Your task to perform on an android device: snooze an email in the gmail app Image 0: 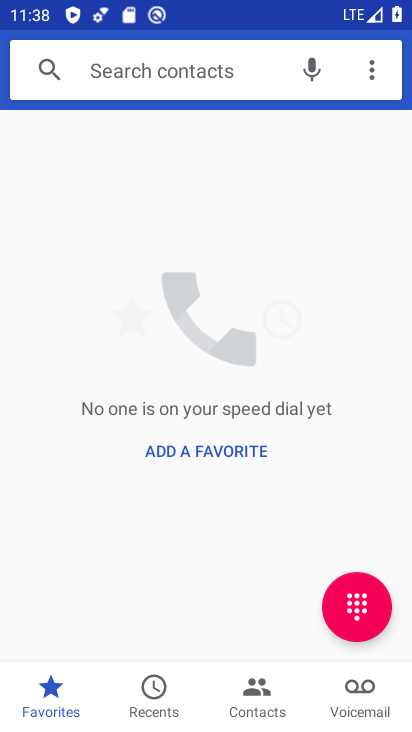
Step 0: press back button
Your task to perform on an android device: snooze an email in the gmail app Image 1: 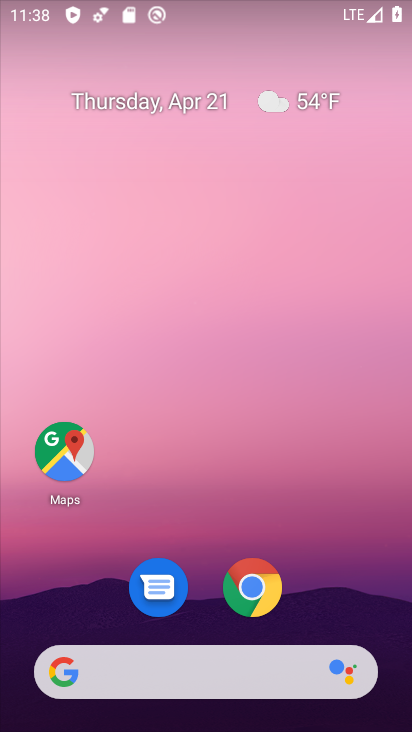
Step 1: drag from (195, 554) to (258, 88)
Your task to perform on an android device: snooze an email in the gmail app Image 2: 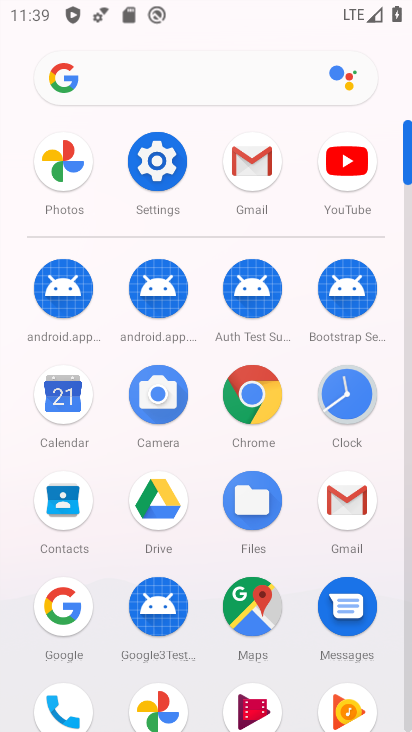
Step 2: click (248, 157)
Your task to perform on an android device: snooze an email in the gmail app Image 3: 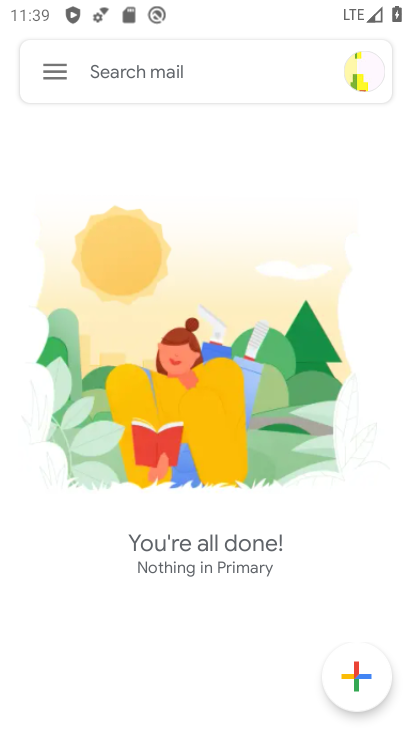
Step 3: click (51, 69)
Your task to perform on an android device: snooze an email in the gmail app Image 4: 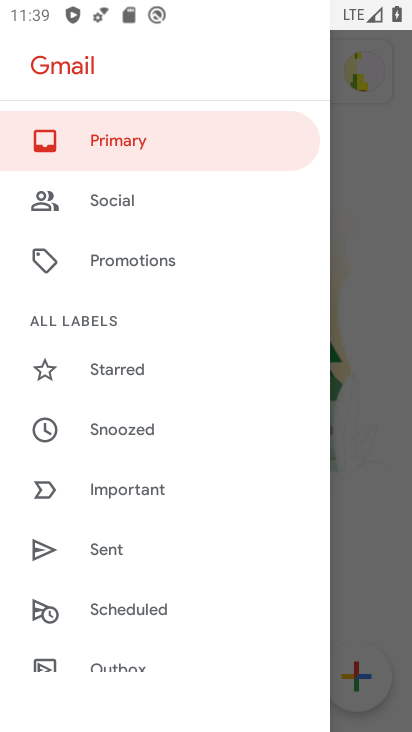
Step 4: drag from (153, 588) to (232, 87)
Your task to perform on an android device: snooze an email in the gmail app Image 5: 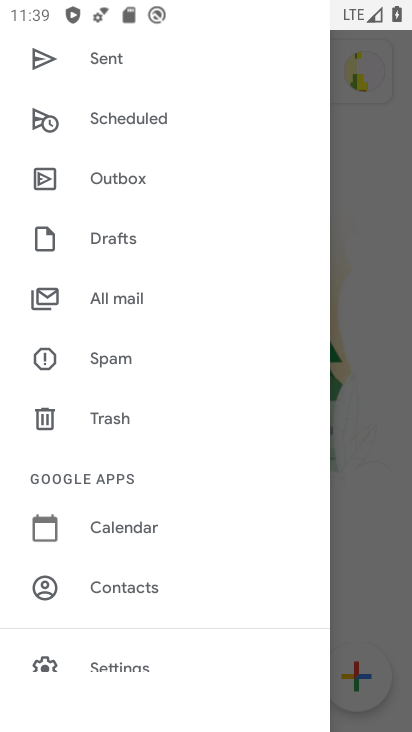
Step 5: click (121, 307)
Your task to perform on an android device: snooze an email in the gmail app Image 6: 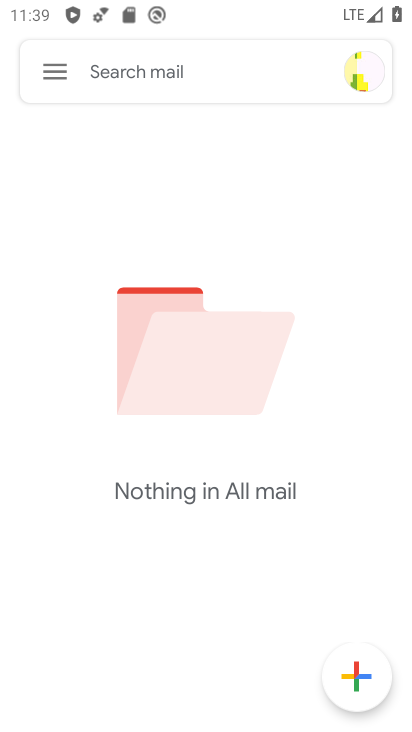
Step 6: task complete